Your task to perform on an android device: check android version Image 0: 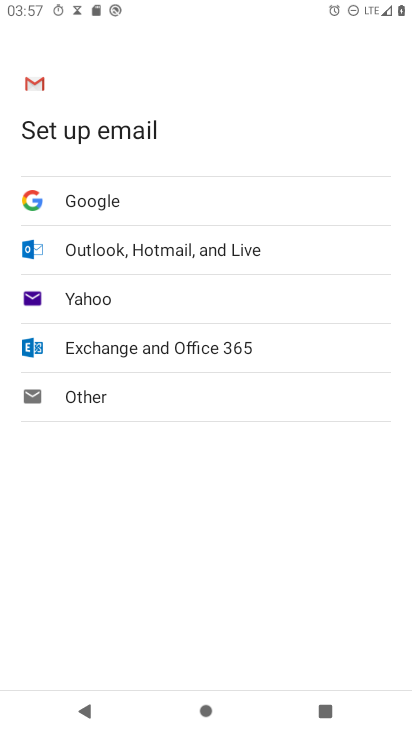
Step 0: drag from (216, 622) to (188, 409)
Your task to perform on an android device: check android version Image 1: 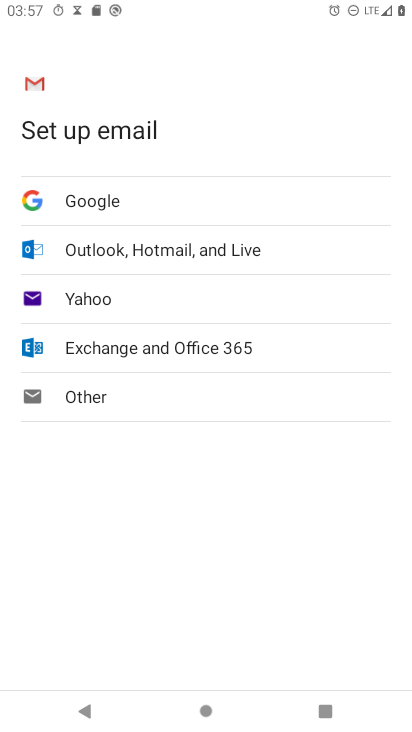
Step 1: press home button
Your task to perform on an android device: check android version Image 2: 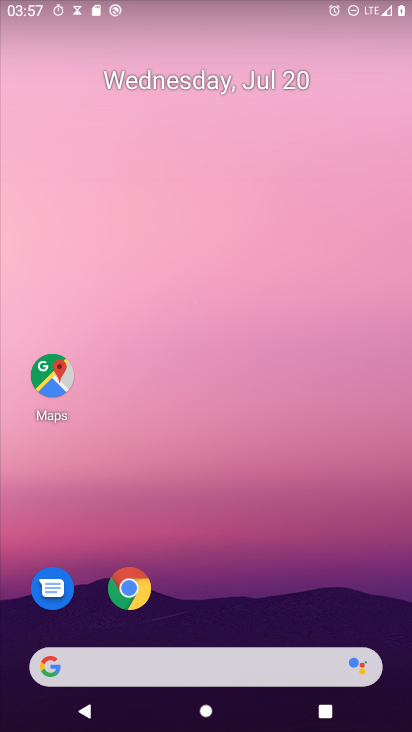
Step 2: drag from (239, 617) to (172, 5)
Your task to perform on an android device: check android version Image 3: 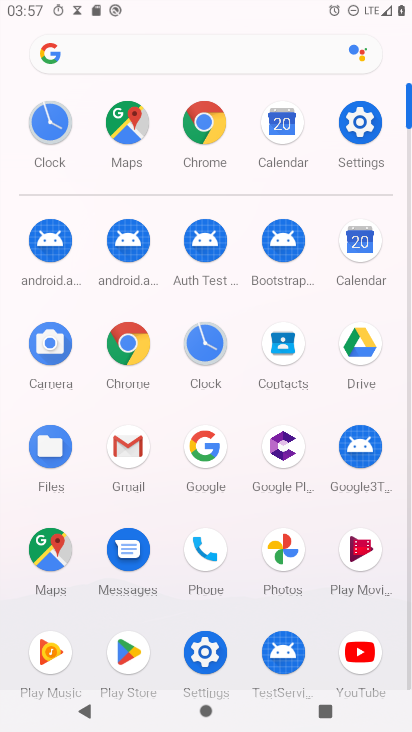
Step 3: click (361, 143)
Your task to perform on an android device: check android version Image 4: 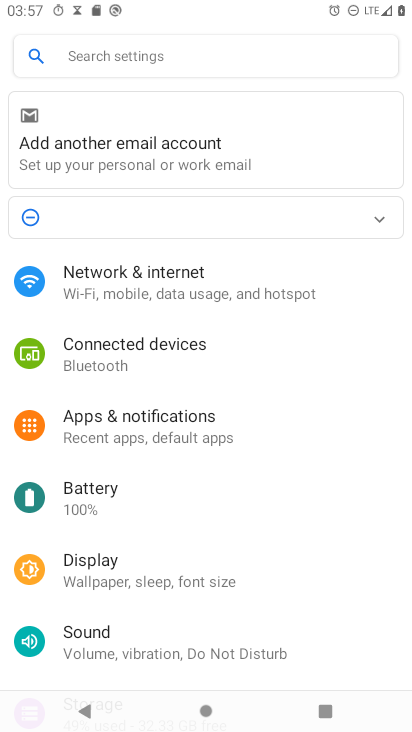
Step 4: drag from (98, 537) to (61, 116)
Your task to perform on an android device: check android version Image 5: 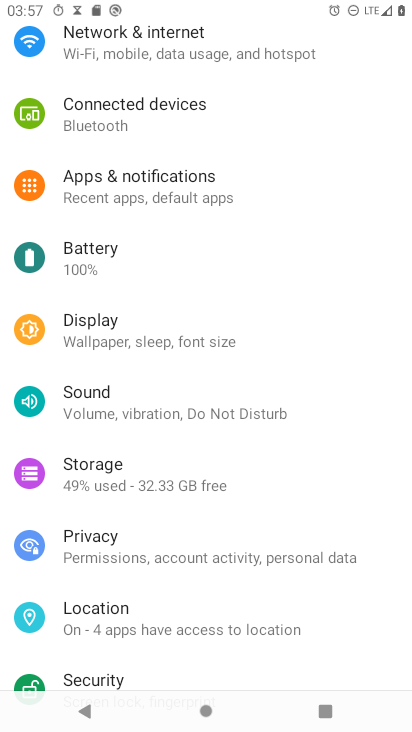
Step 5: drag from (181, 515) to (108, 3)
Your task to perform on an android device: check android version Image 6: 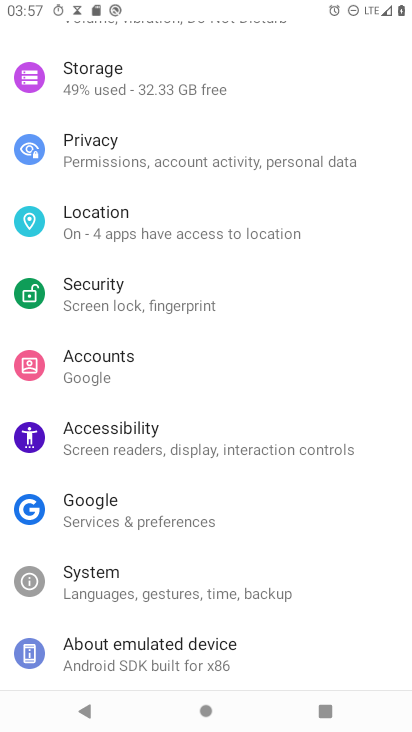
Step 6: click (124, 639)
Your task to perform on an android device: check android version Image 7: 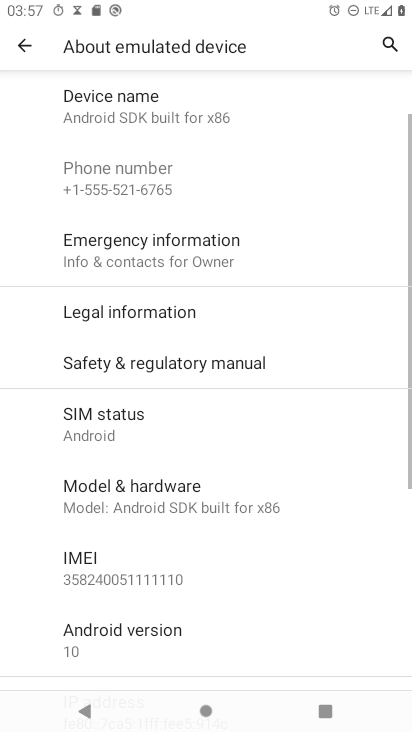
Step 7: click (88, 647)
Your task to perform on an android device: check android version Image 8: 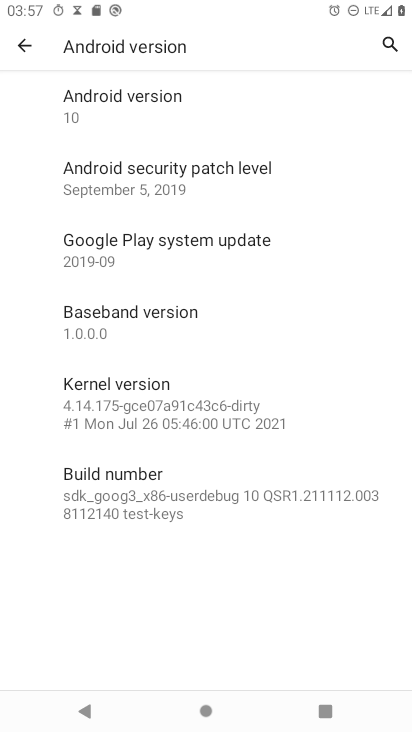
Step 8: click (118, 92)
Your task to perform on an android device: check android version Image 9: 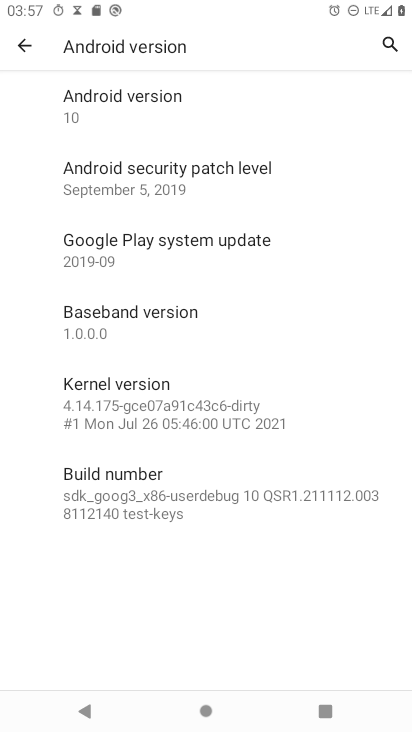
Step 9: task complete